Your task to perform on an android device: Open sound settings Image 0: 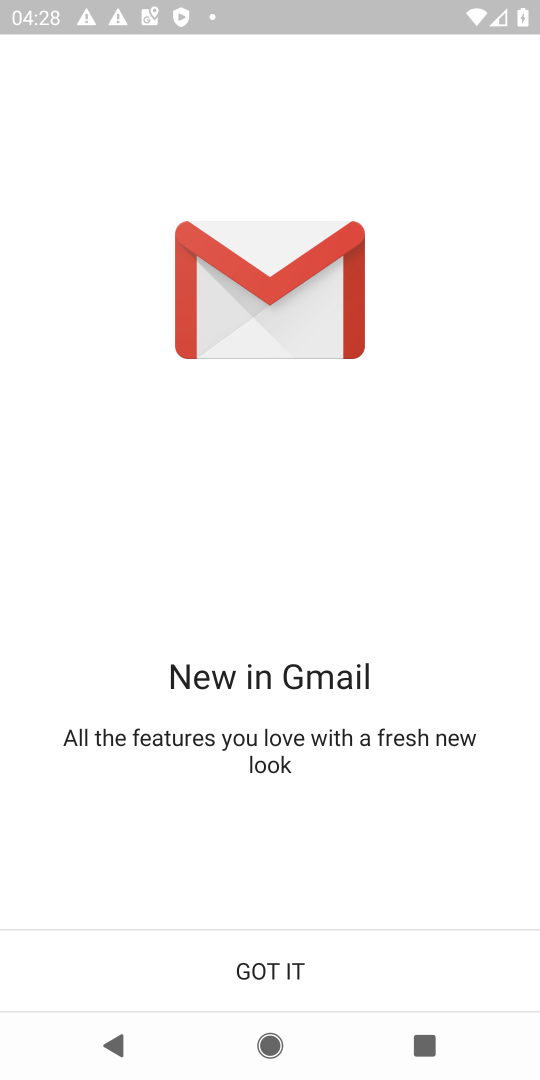
Step 0: press home button
Your task to perform on an android device: Open sound settings Image 1: 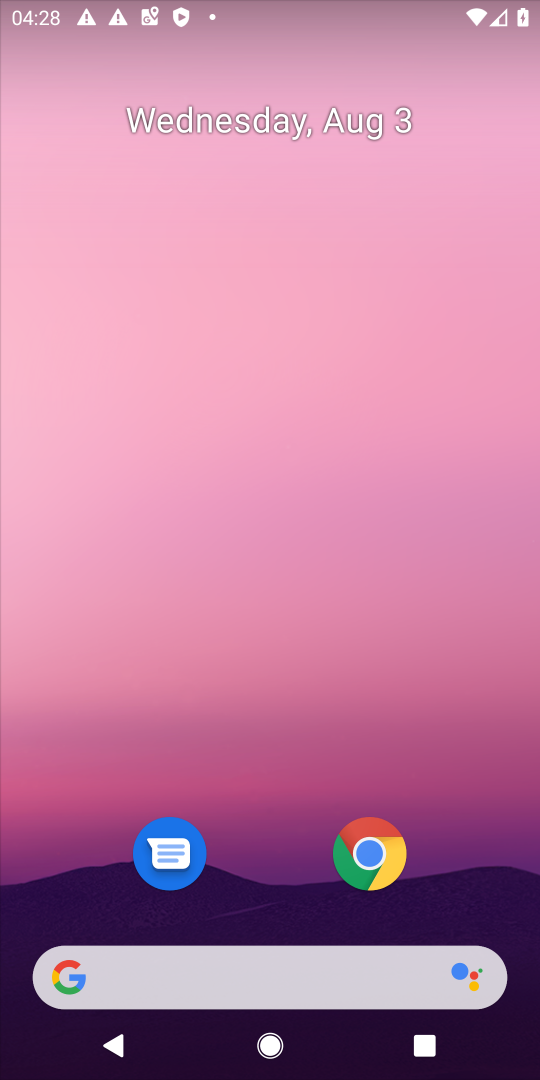
Step 1: drag from (505, 895) to (313, 32)
Your task to perform on an android device: Open sound settings Image 2: 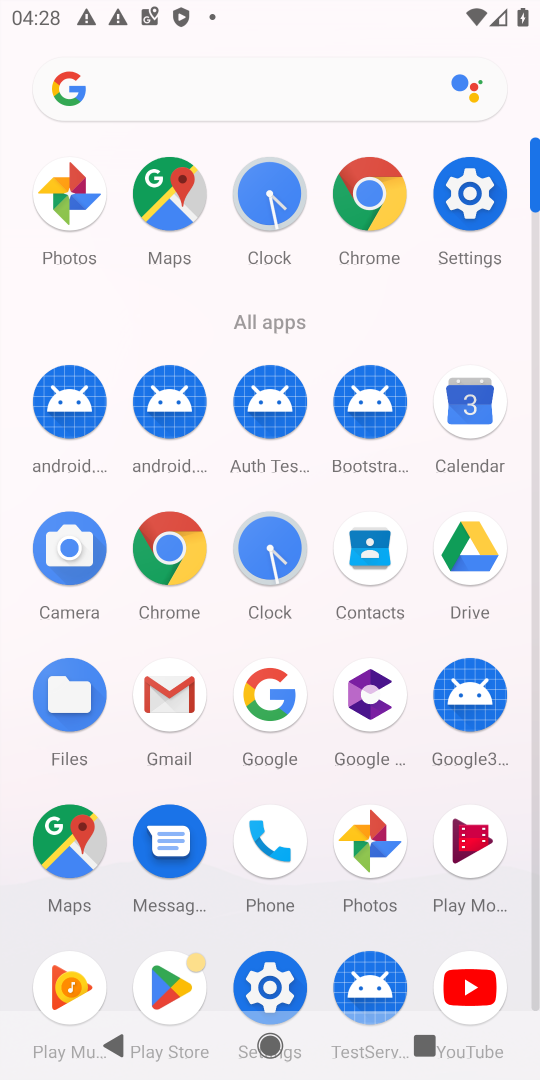
Step 2: click (470, 211)
Your task to perform on an android device: Open sound settings Image 3: 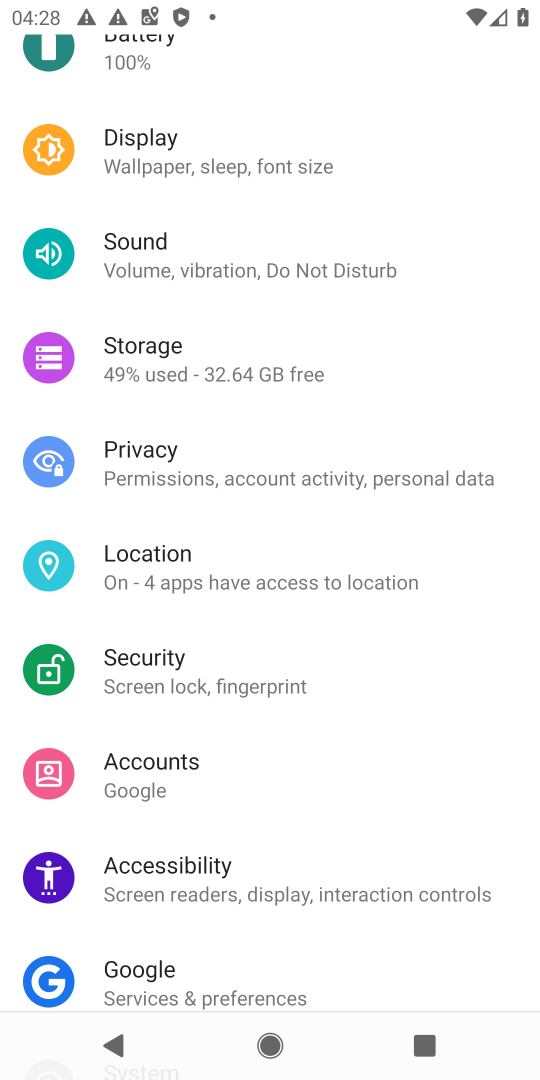
Step 3: click (213, 265)
Your task to perform on an android device: Open sound settings Image 4: 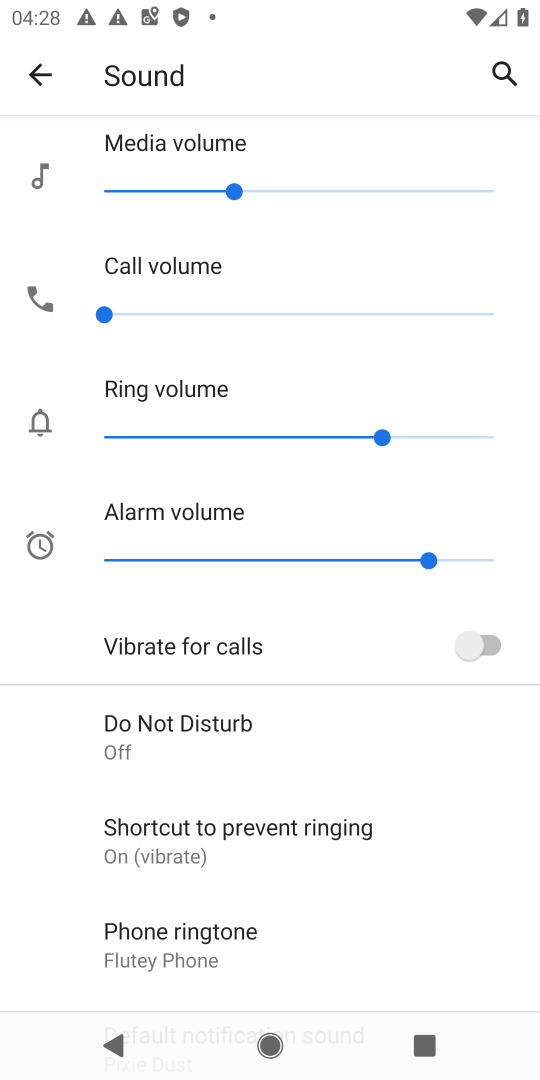
Step 4: task complete